Your task to perform on an android device: open wifi settings Image 0: 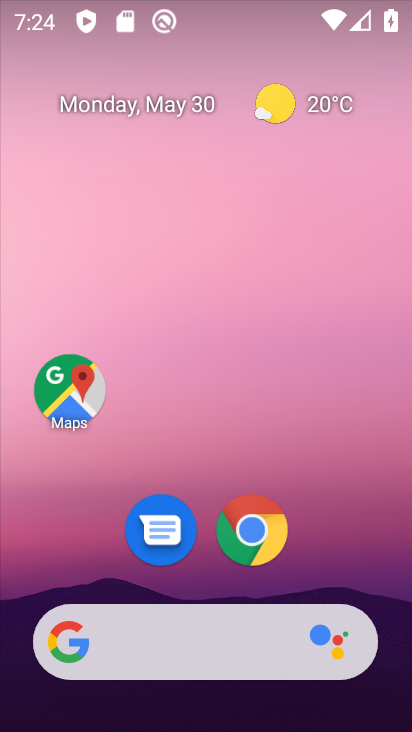
Step 0: drag from (222, 10) to (124, 360)
Your task to perform on an android device: open wifi settings Image 1: 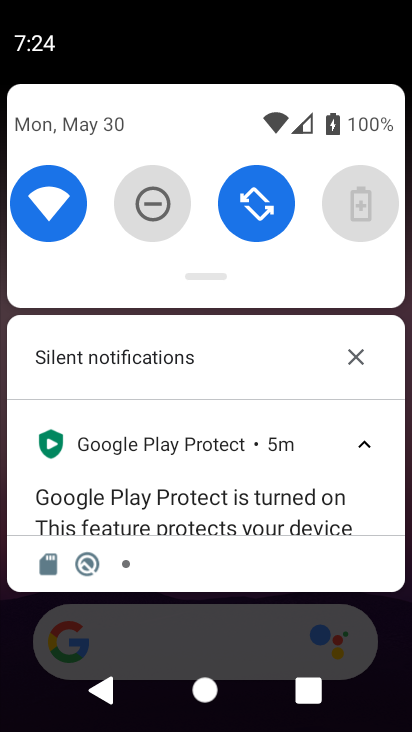
Step 1: click (355, 356)
Your task to perform on an android device: open wifi settings Image 2: 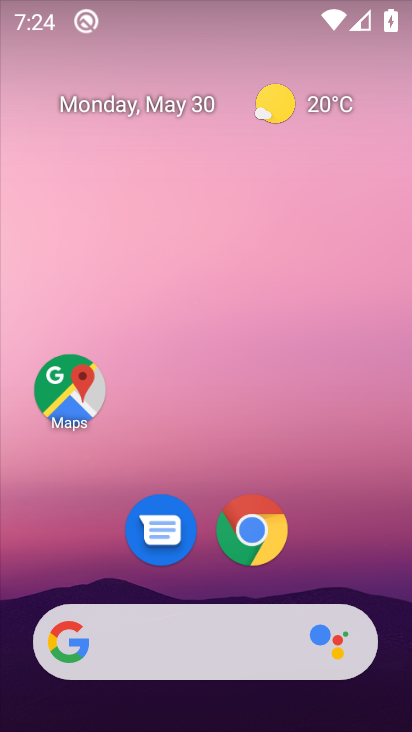
Step 2: drag from (257, 5) to (202, 388)
Your task to perform on an android device: open wifi settings Image 3: 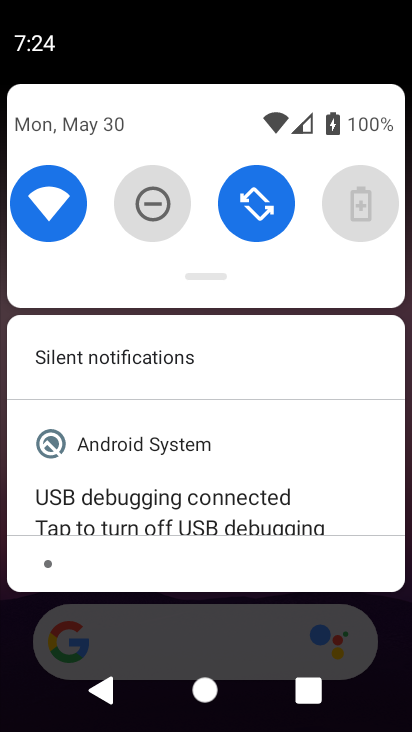
Step 3: click (48, 206)
Your task to perform on an android device: open wifi settings Image 4: 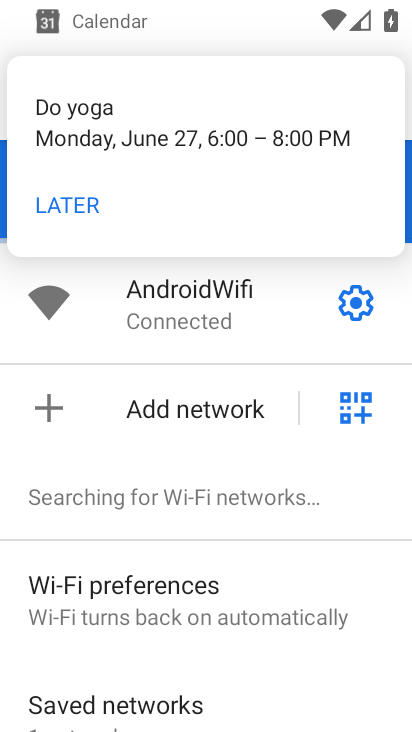
Step 4: click (363, 303)
Your task to perform on an android device: open wifi settings Image 5: 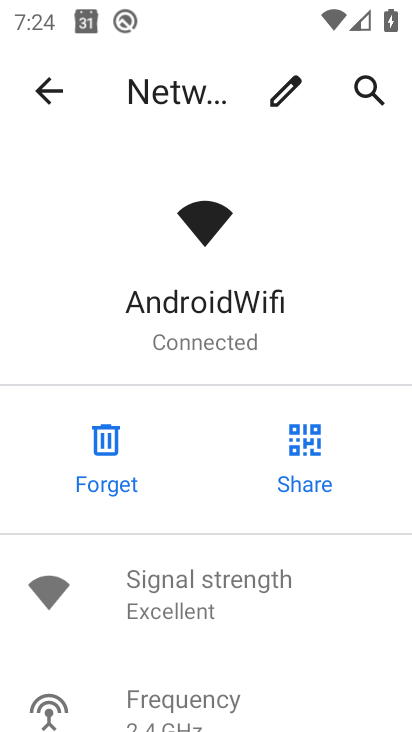
Step 5: task complete